Your task to perform on an android device: Go to display settings Image 0: 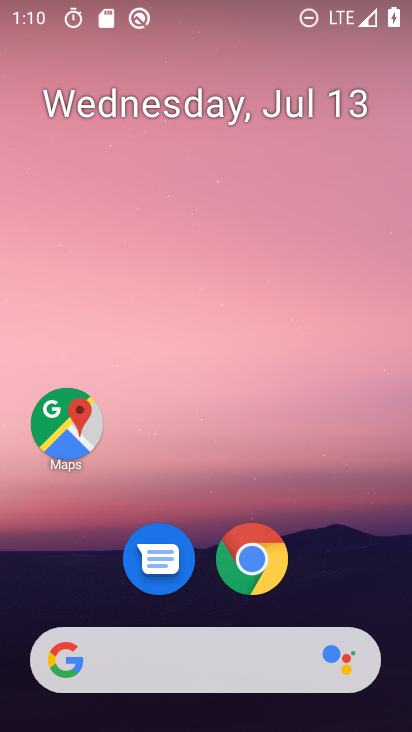
Step 0: drag from (214, 590) to (274, 114)
Your task to perform on an android device: Go to display settings Image 1: 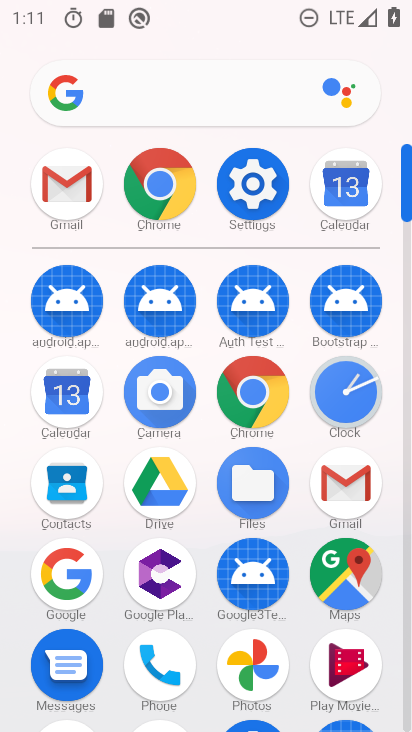
Step 1: click (258, 204)
Your task to perform on an android device: Go to display settings Image 2: 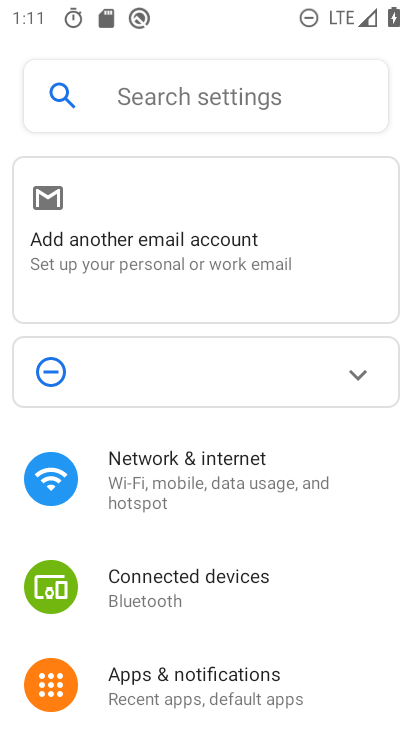
Step 2: drag from (220, 591) to (246, 306)
Your task to perform on an android device: Go to display settings Image 3: 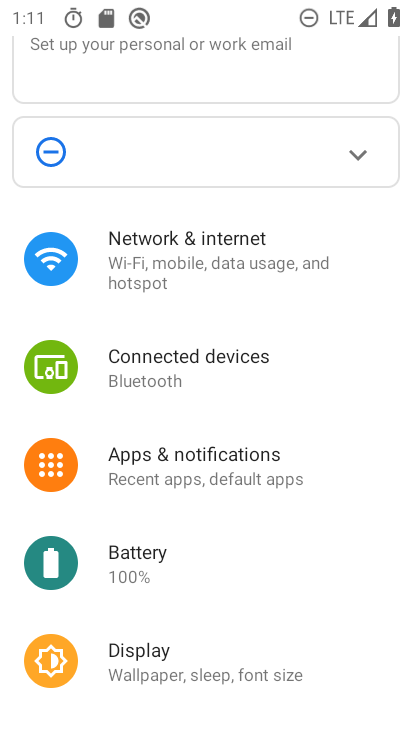
Step 3: click (188, 659)
Your task to perform on an android device: Go to display settings Image 4: 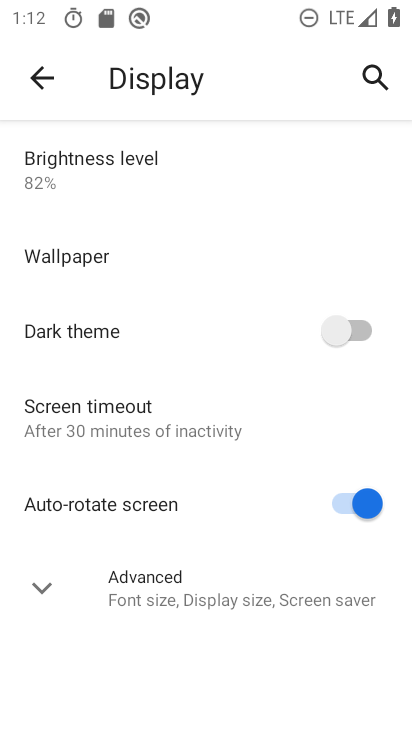
Step 4: click (180, 592)
Your task to perform on an android device: Go to display settings Image 5: 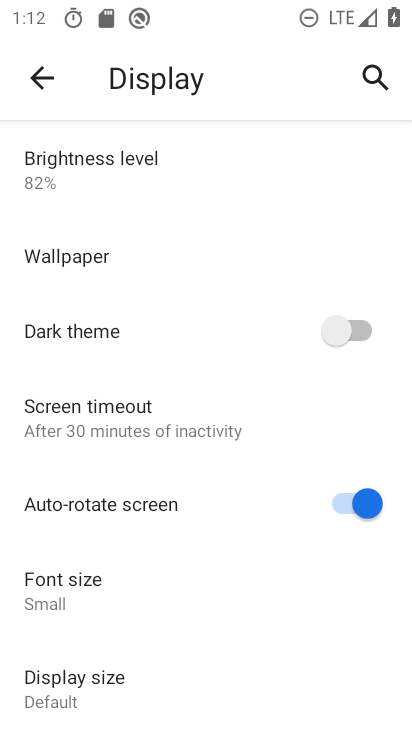
Step 5: task complete